Your task to perform on an android device: all mails in gmail Image 0: 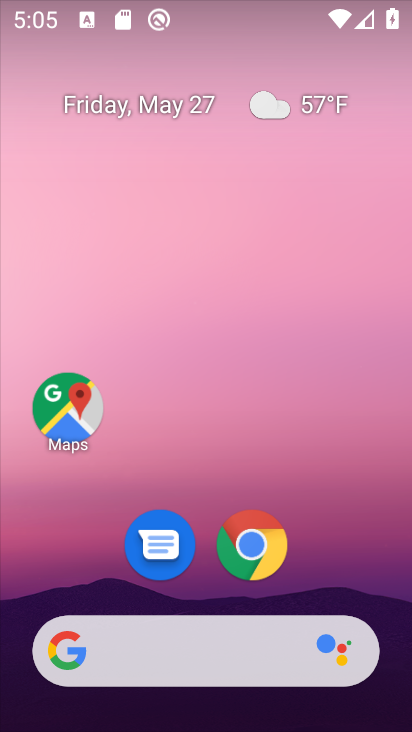
Step 0: drag from (394, 687) to (352, 107)
Your task to perform on an android device: all mails in gmail Image 1: 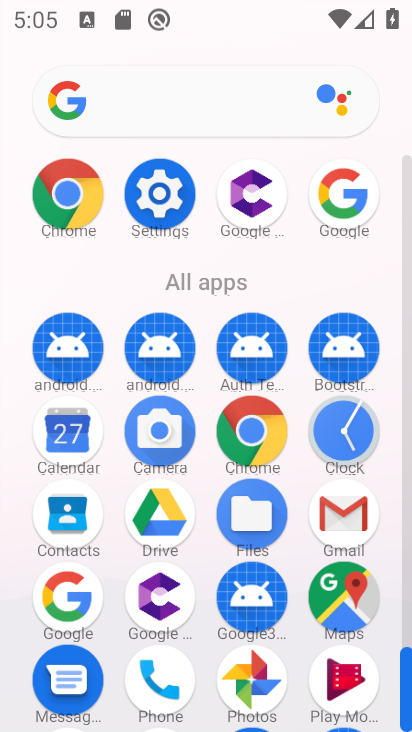
Step 1: click (348, 505)
Your task to perform on an android device: all mails in gmail Image 2: 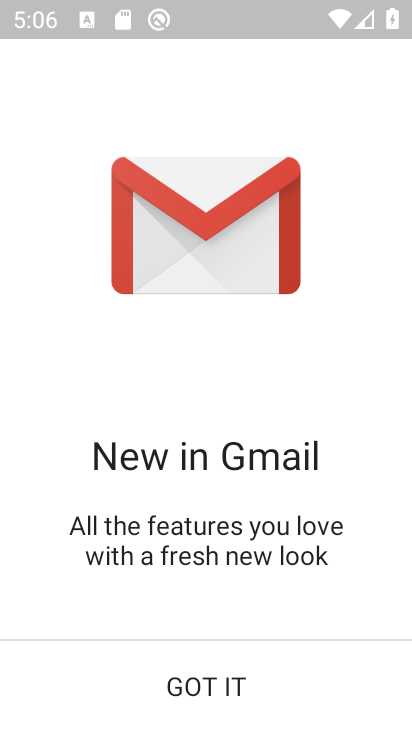
Step 2: click (193, 690)
Your task to perform on an android device: all mails in gmail Image 3: 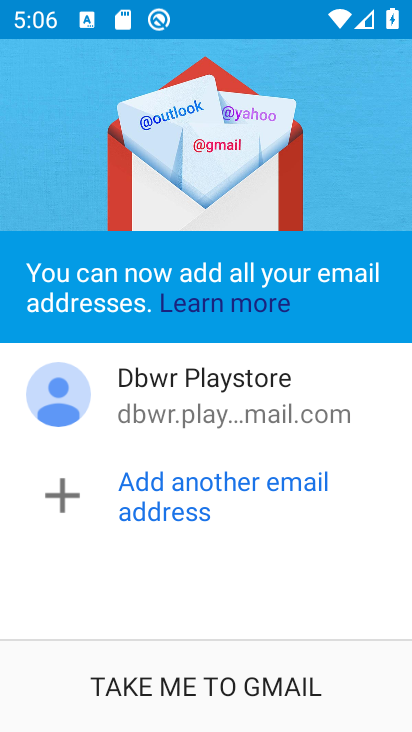
Step 3: click (192, 687)
Your task to perform on an android device: all mails in gmail Image 4: 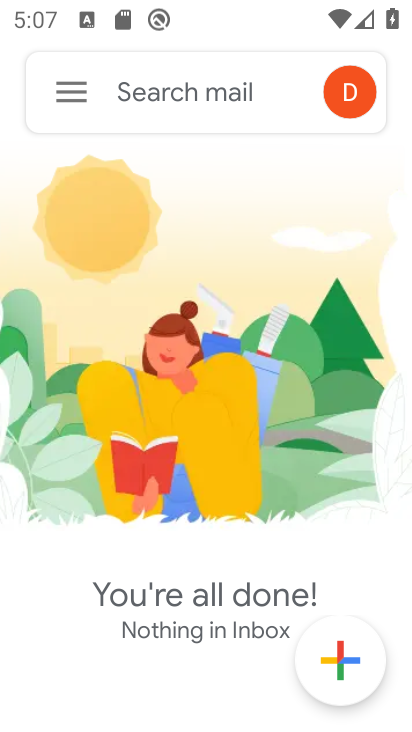
Step 4: click (63, 90)
Your task to perform on an android device: all mails in gmail Image 5: 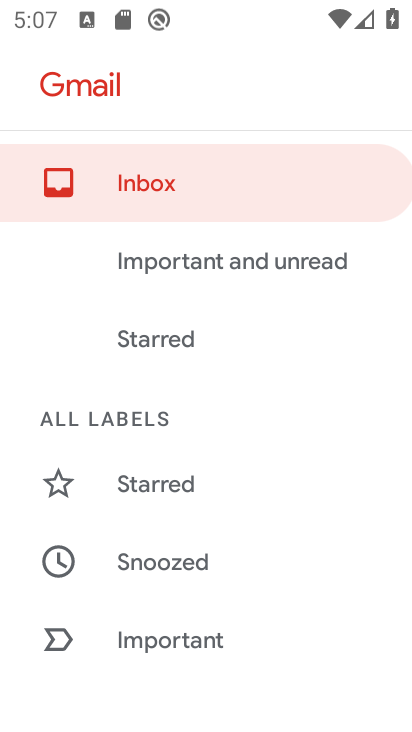
Step 5: drag from (296, 642) to (276, 269)
Your task to perform on an android device: all mails in gmail Image 6: 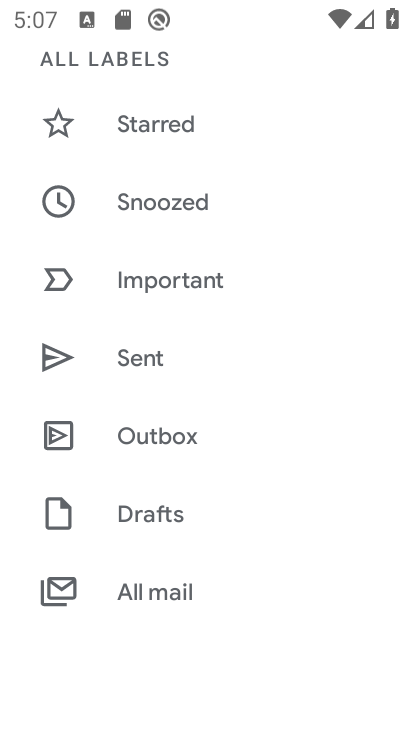
Step 6: drag from (288, 598) to (281, 206)
Your task to perform on an android device: all mails in gmail Image 7: 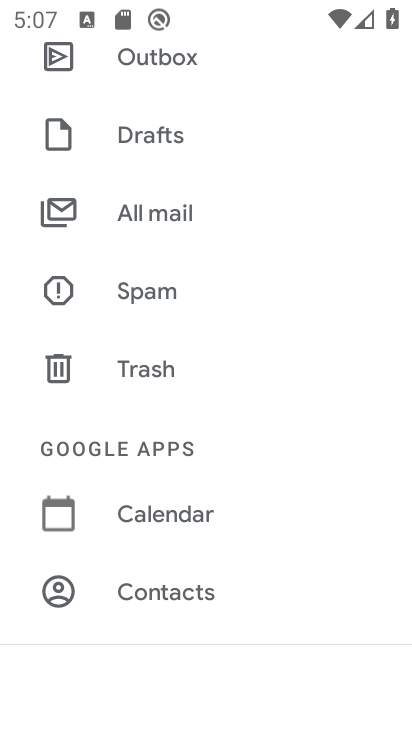
Step 7: click (144, 214)
Your task to perform on an android device: all mails in gmail Image 8: 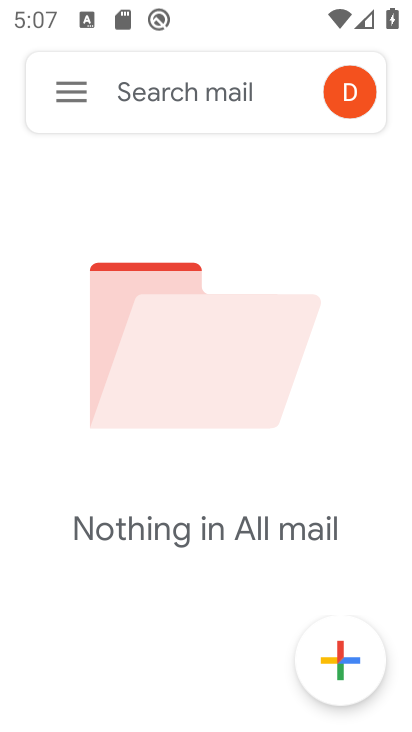
Step 8: task complete